Your task to perform on an android device: turn off location history Image 0: 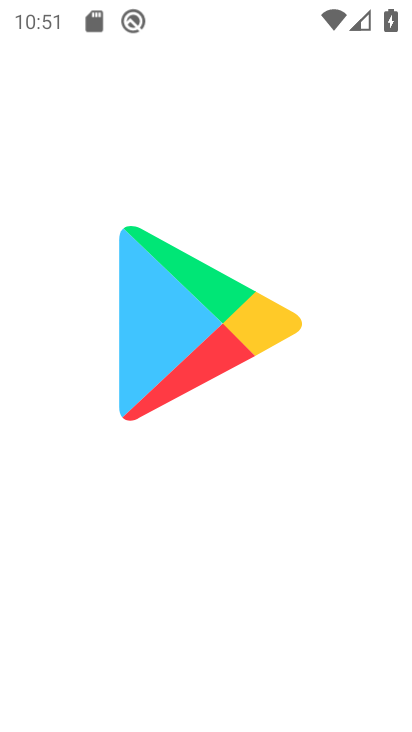
Step 0: press home button
Your task to perform on an android device: turn off location history Image 1: 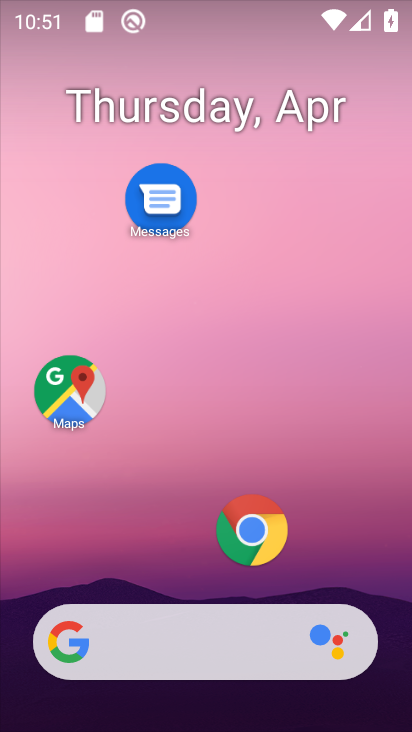
Step 1: drag from (207, 702) to (184, 109)
Your task to perform on an android device: turn off location history Image 2: 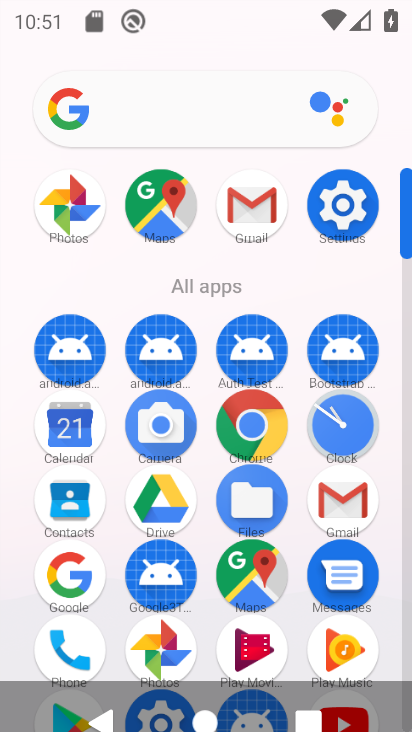
Step 2: click (340, 197)
Your task to perform on an android device: turn off location history Image 3: 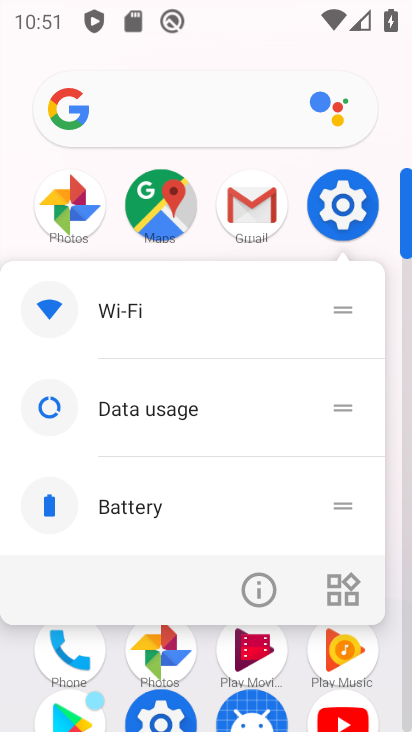
Step 3: click (339, 200)
Your task to perform on an android device: turn off location history Image 4: 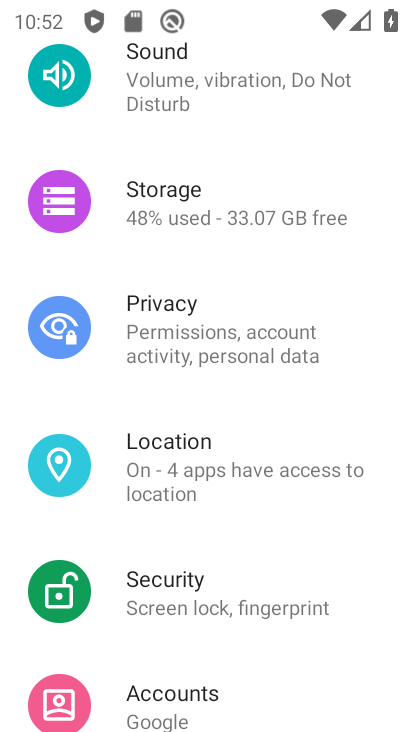
Step 4: click (178, 476)
Your task to perform on an android device: turn off location history Image 5: 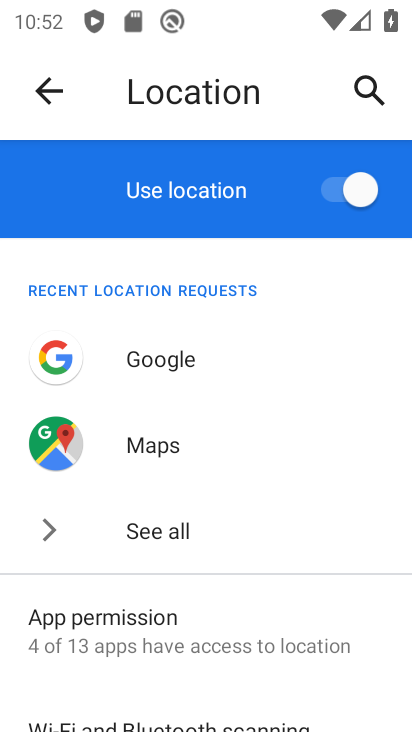
Step 5: drag from (208, 689) to (202, 348)
Your task to perform on an android device: turn off location history Image 6: 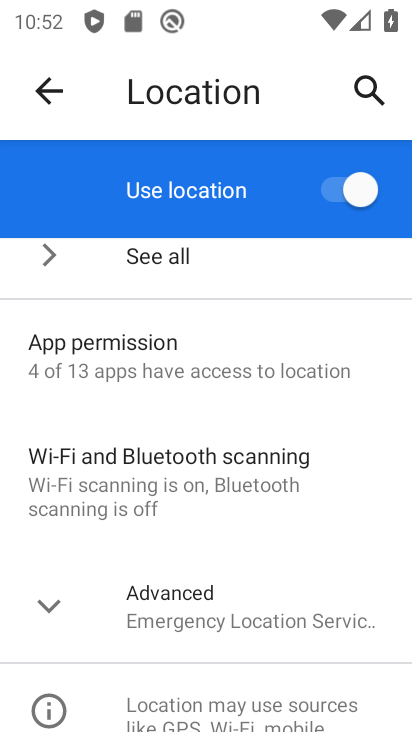
Step 6: click (193, 603)
Your task to perform on an android device: turn off location history Image 7: 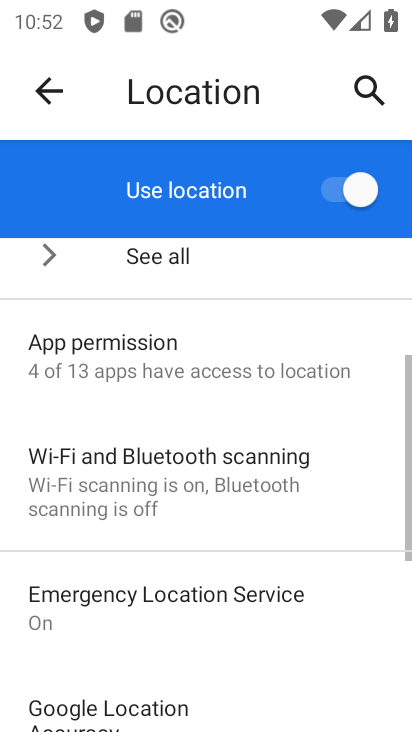
Step 7: drag from (218, 686) to (228, 381)
Your task to perform on an android device: turn off location history Image 8: 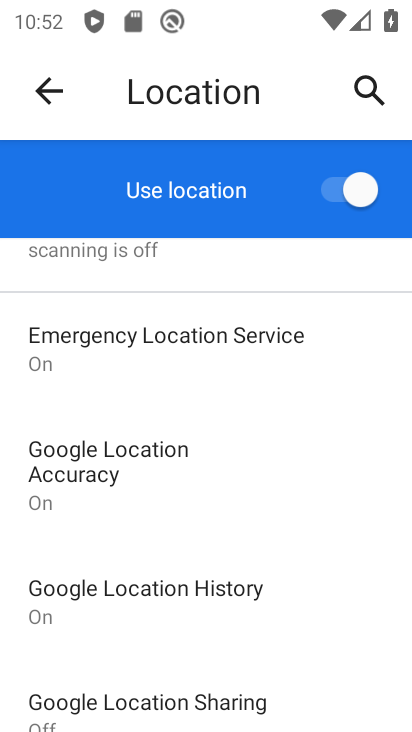
Step 8: click (126, 587)
Your task to perform on an android device: turn off location history Image 9: 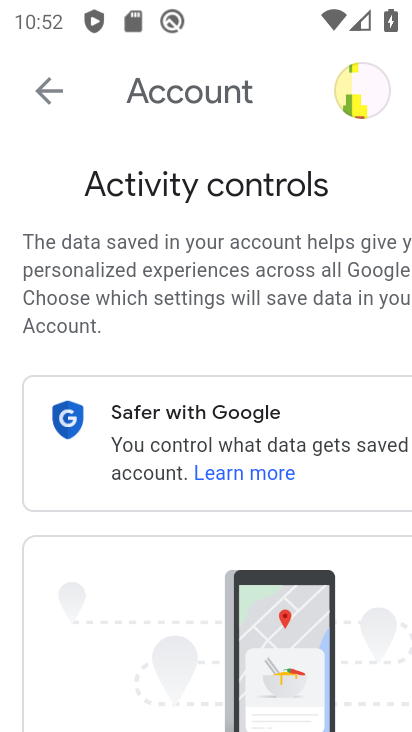
Step 9: drag from (209, 669) to (210, 301)
Your task to perform on an android device: turn off location history Image 10: 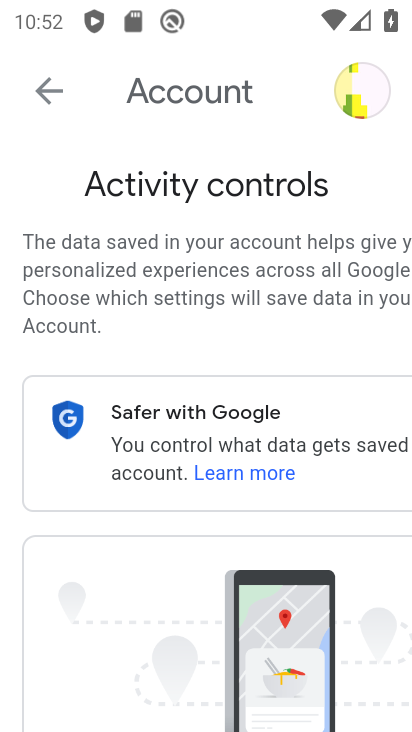
Step 10: drag from (182, 695) to (180, 269)
Your task to perform on an android device: turn off location history Image 11: 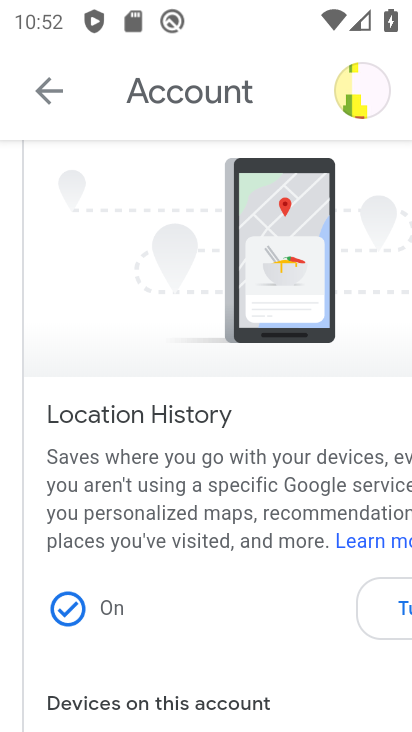
Step 11: click (391, 605)
Your task to perform on an android device: turn off location history Image 12: 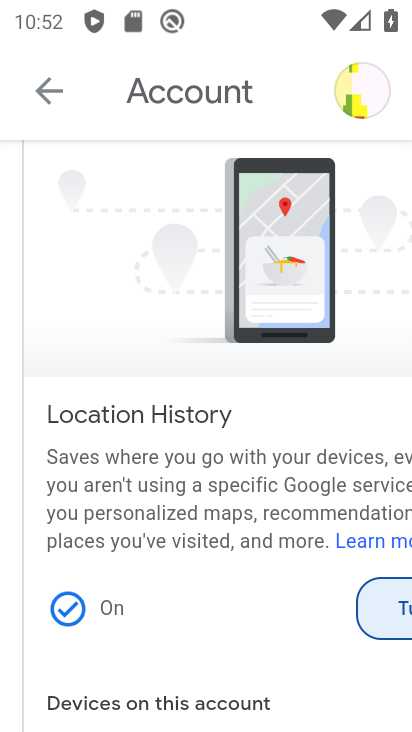
Step 12: drag from (266, 660) to (249, 423)
Your task to perform on an android device: turn off location history Image 13: 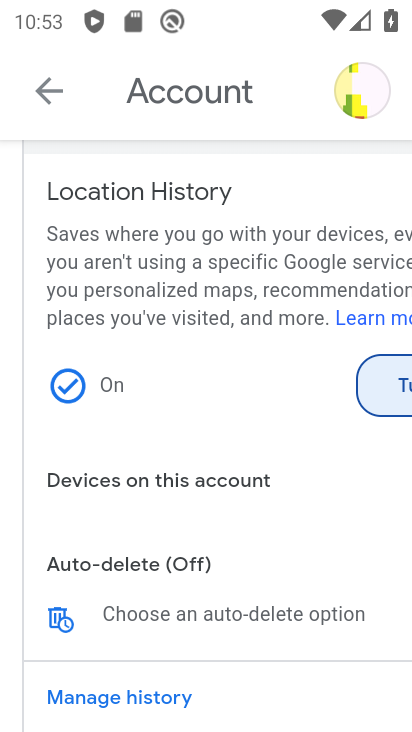
Step 13: click (391, 378)
Your task to perform on an android device: turn off location history Image 14: 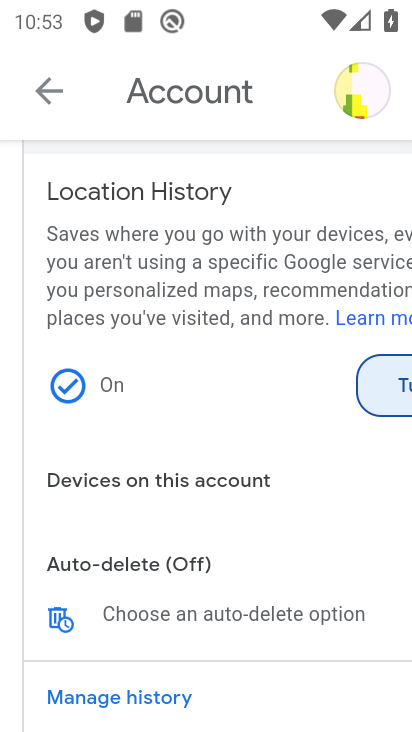
Step 14: click (382, 380)
Your task to perform on an android device: turn off location history Image 15: 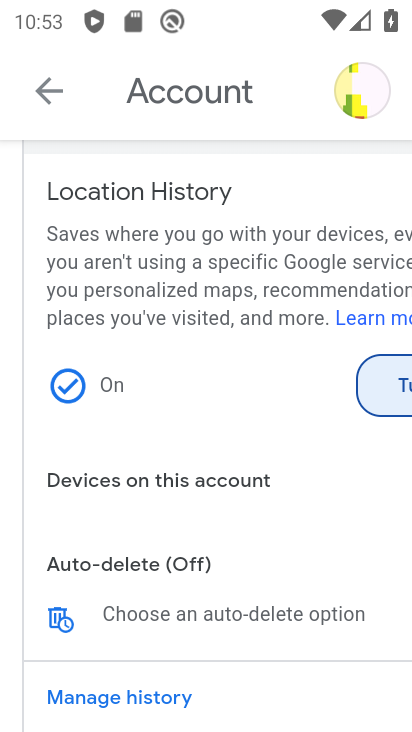
Step 15: click (381, 381)
Your task to perform on an android device: turn off location history Image 16: 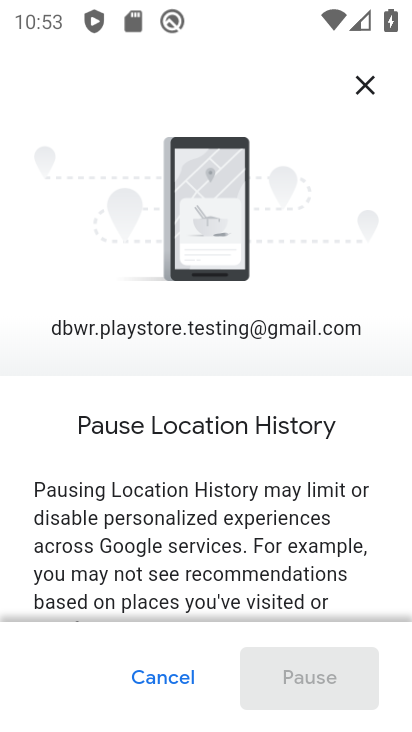
Step 16: drag from (266, 570) to (271, 289)
Your task to perform on an android device: turn off location history Image 17: 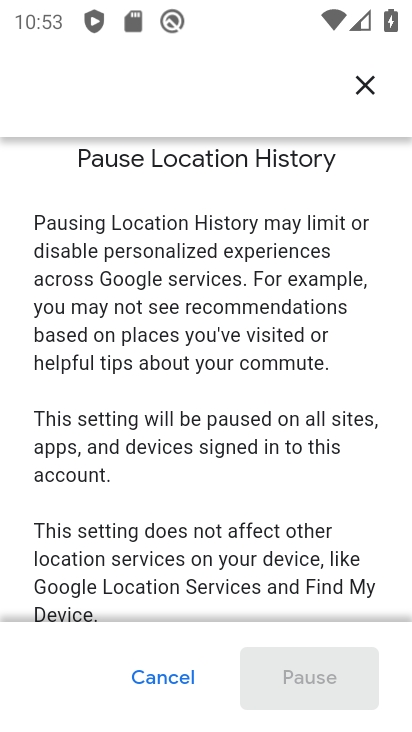
Step 17: drag from (254, 596) to (252, 317)
Your task to perform on an android device: turn off location history Image 18: 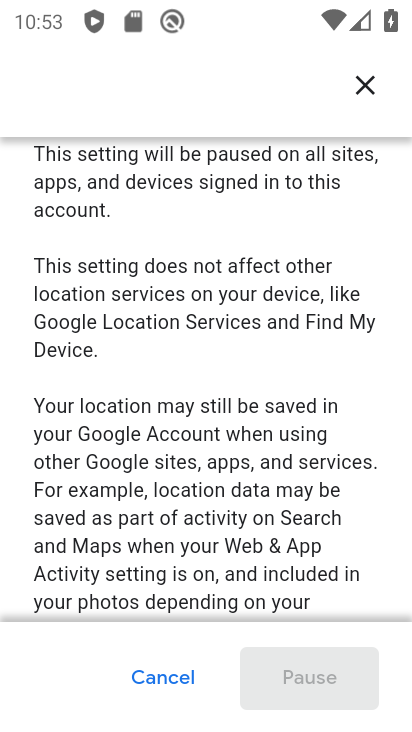
Step 18: drag from (265, 600) to (270, 276)
Your task to perform on an android device: turn off location history Image 19: 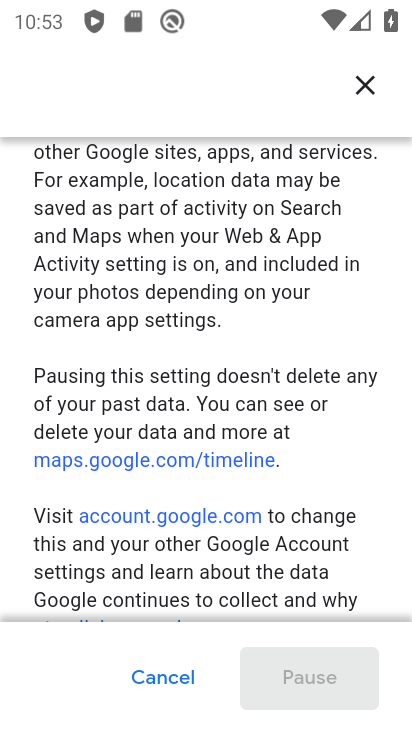
Step 19: drag from (267, 583) to (266, 299)
Your task to perform on an android device: turn off location history Image 20: 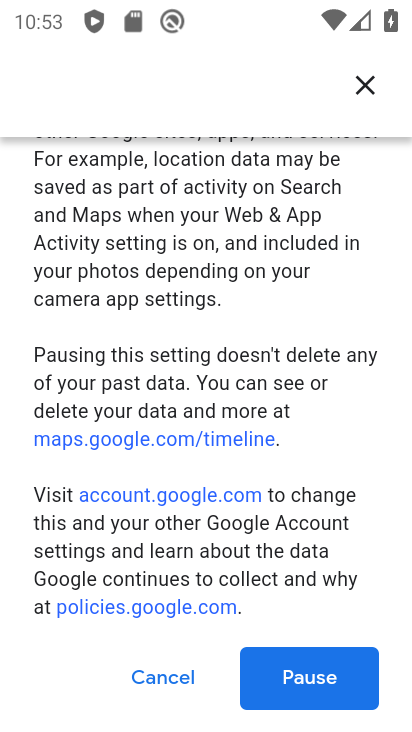
Step 20: click (311, 681)
Your task to perform on an android device: turn off location history Image 21: 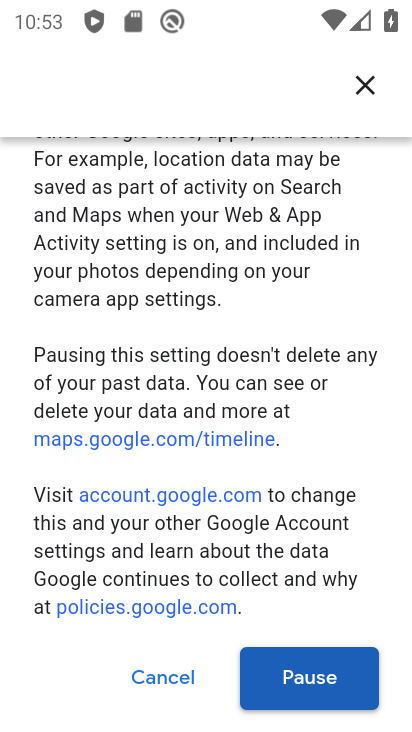
Step 21: click (309, 682)
Your task to perform on an android device: turn off location history Image 22: 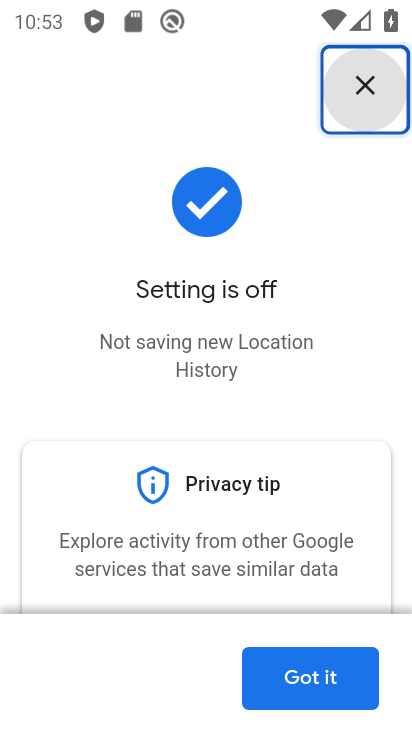
Step 22: task complete